Your task to perform on an android device: Open the Play Movies app and select the watchlist tab. Image 0: 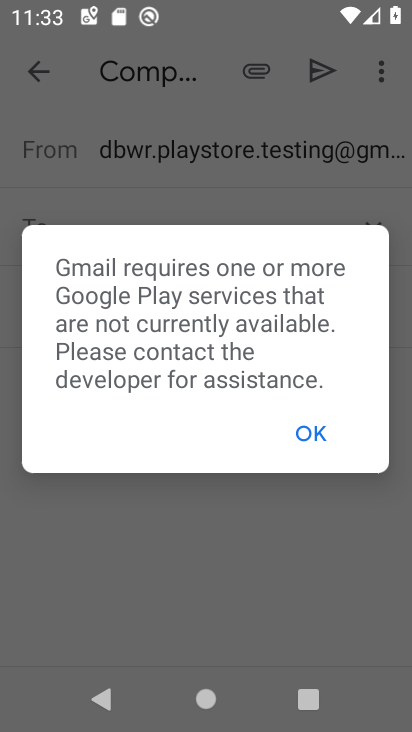
Step 0: click (306, 430)
Your task to perform on an android device: Open the Play Movies app and select the watchlist tab. Image 1: 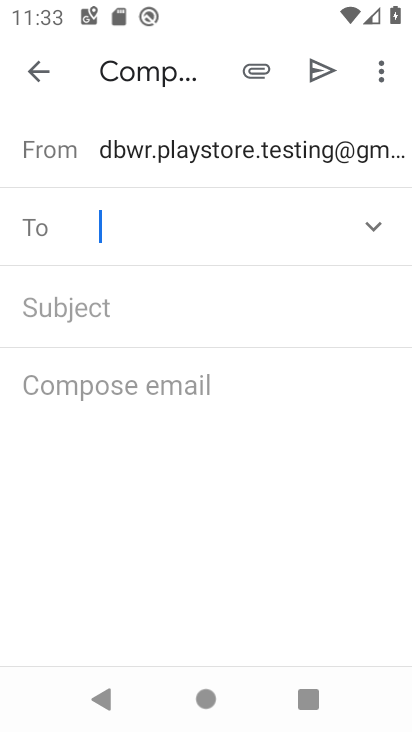
Step 1: press back button
Your task to perform on an android device: Open the Play Movies app and select the watchlist tab. Image 2: 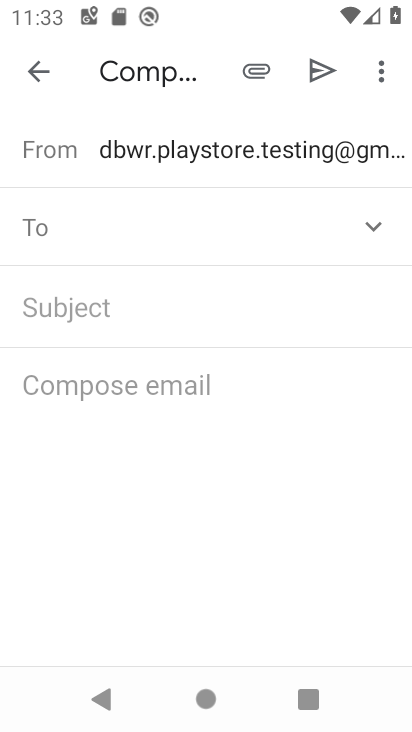
Step 2: press back button
Your task to perform on an android device: Open the Play Movies app and select the watchlist tab. Image 3: 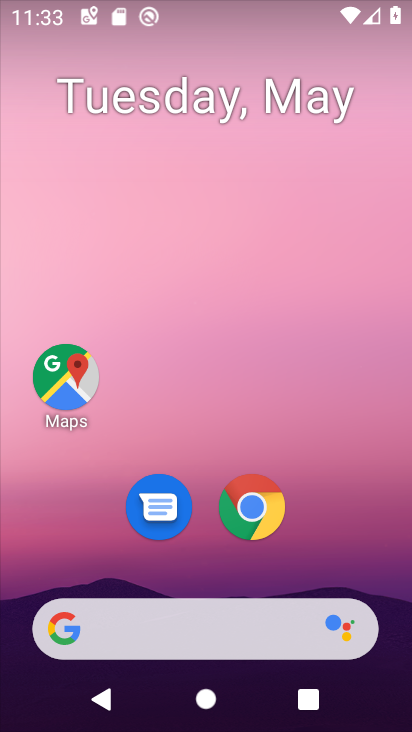
Step 3: drag from (257, 560) to (217, 158)
Your task to perform on an android device: Open the Play Movies app and select the watchlist tab. Image 4: 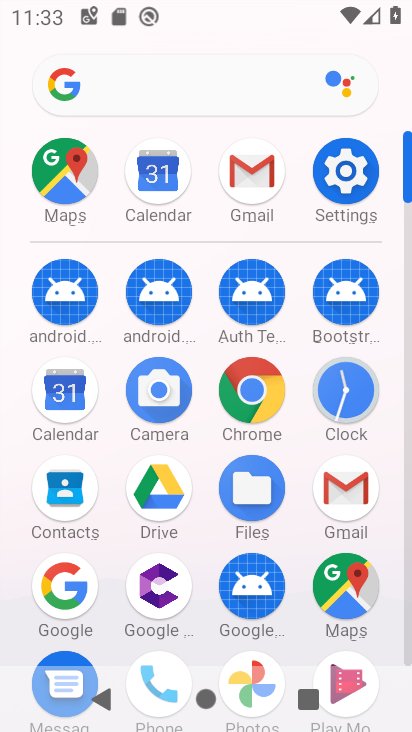
Step 4: drag from (321, 463) to (295, 250)
Your task to perform on an android device: Open the Play Movies app and select the watchlist tab. Image 5: 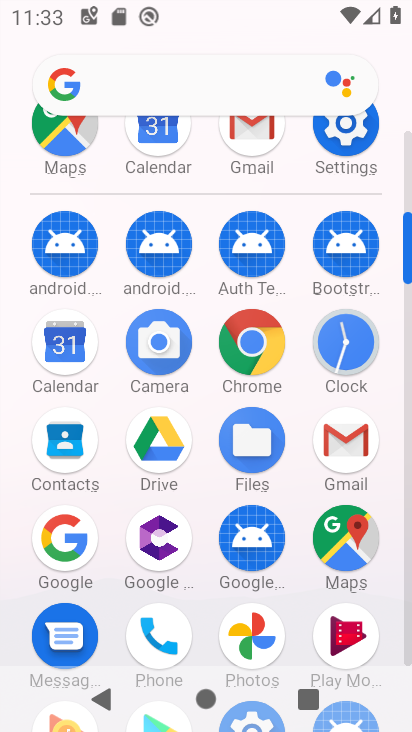
Step 5: drag from (294, 396) to (287, 156)
Your task to perform on an android device: Open the Play Movies app and select the watchlist tab. Image 6: 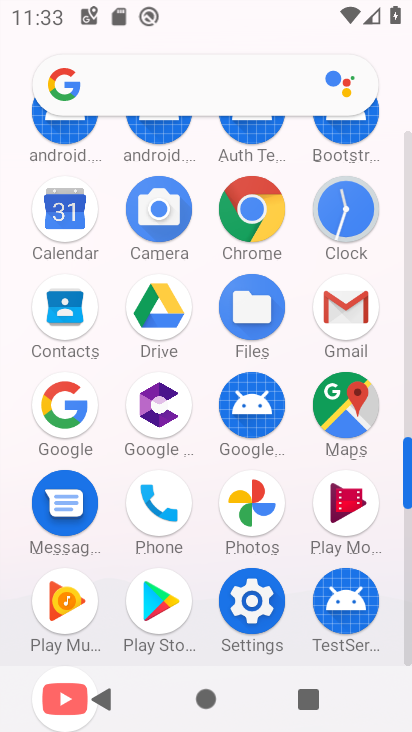
Step 6: click (343, 525)
Your task to perform on an android device: Open the Play Movies app and select the watchlist tab. Image 7: 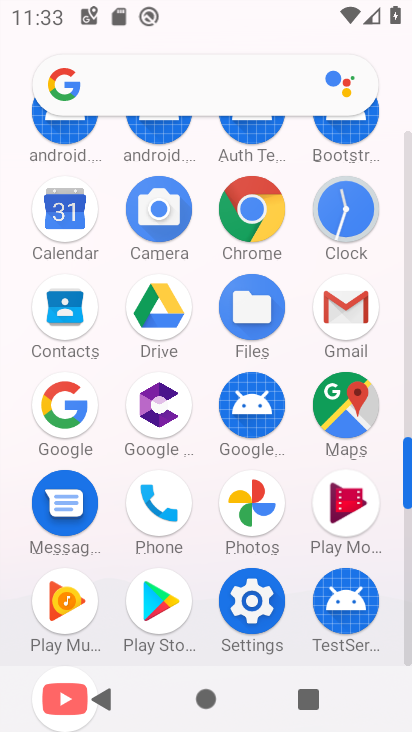
Step 7: click (343, 525)
Your task to perform on an android device: Open the Play Movies app and select the watchlist tab. Image 8: 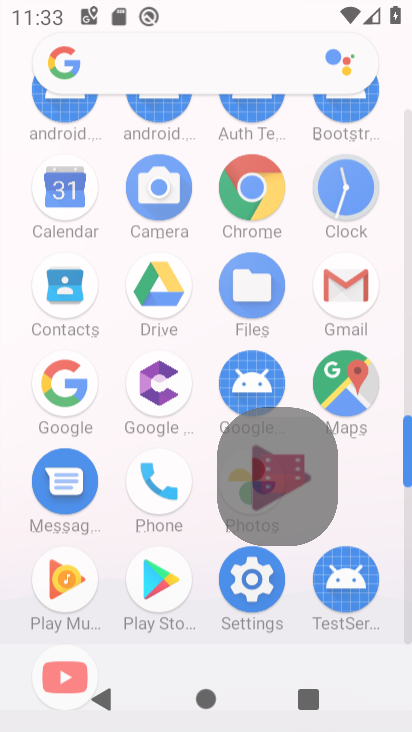
Step 8: click (343, 525)
Your task to perform on an android device: Open the Play Movies app and select the watchlist tab. Image 9: 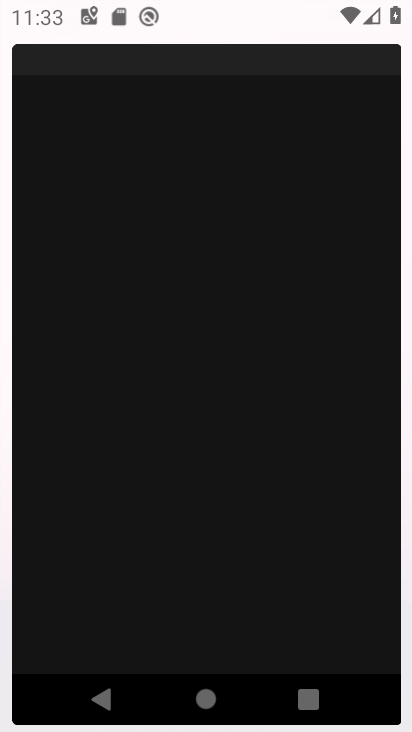
Step 9: click (345, 525)
Your task to perform on an android device: Open the Play Movies app and select the watchlist tab. Image 10: 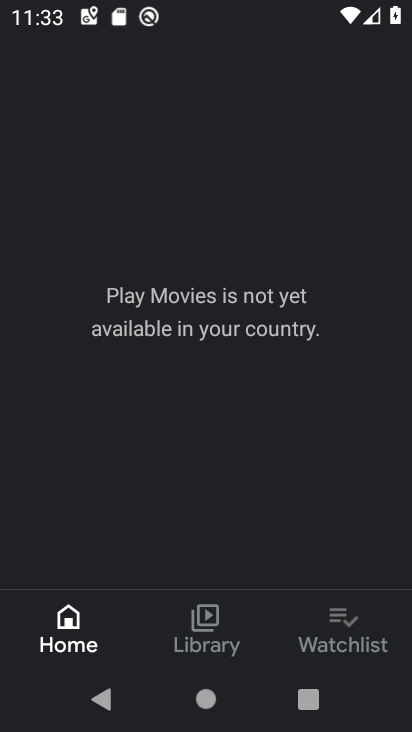
Step 10: click (344, 632)
Your task to perform on an android device: Open the Play Movies app and select the watchlist tab. Image 11: 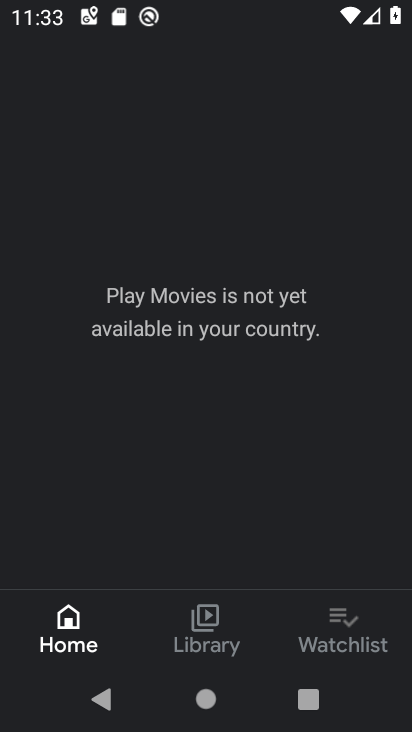
Step 11: click (344, 622)
Your task to perform on an android device: Open the Play Movies app and select the watchlist tab. Image 12: 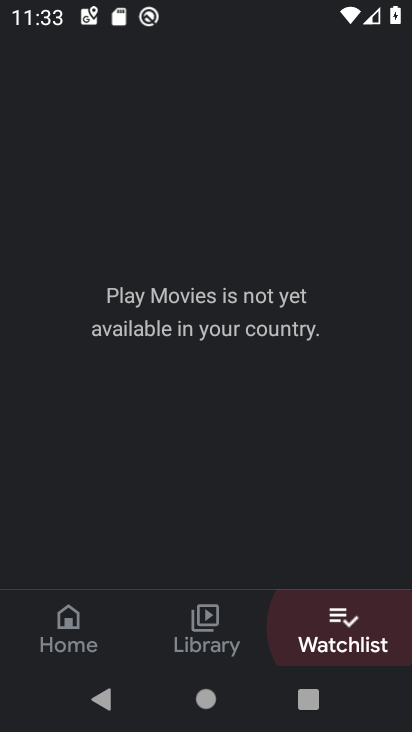
Step 12: click (344, 619)
Your task to perform on an android device: Open the Play Movies app and select the watchlist tab. Image 13: 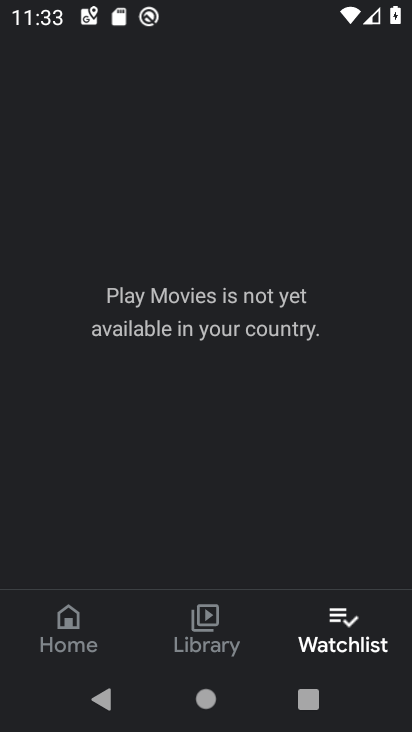
Step 13: click (337, 618)
Your task to perform on an android device: Open the Play Movies app and select the watchlist tab. Image 14: 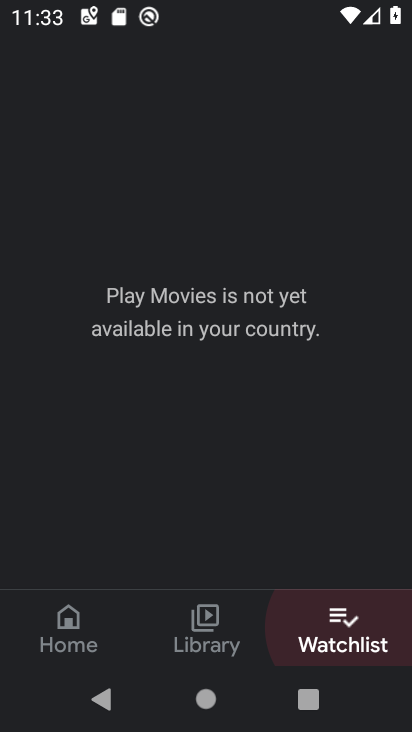
Step 14: click (336, 612)
Your task to perform on an android device: Open the Play Movies app and select the watchlist tab. Image 15: 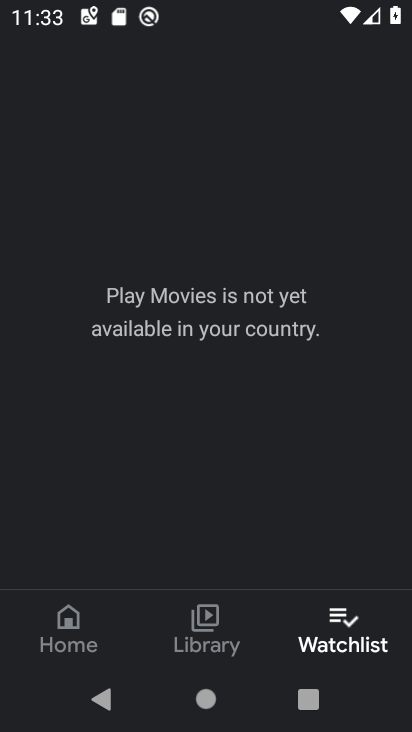
Step 15: click (333, 626)
Your task to perform on an android device: Open the Play Movies app and select the watchlist tab. Image 16: 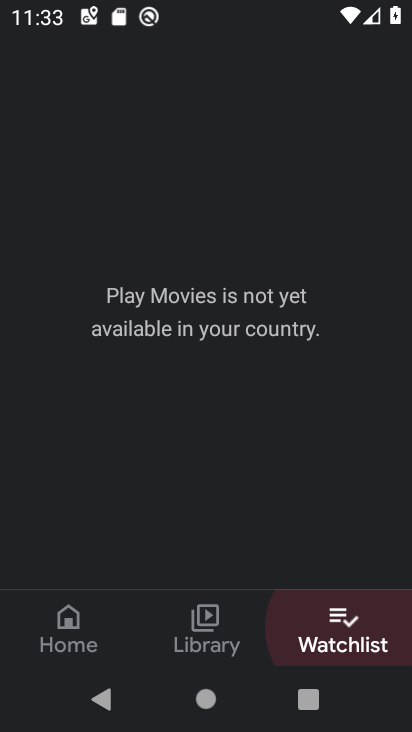
Step 16: click (334, 630)
Your task to perform on an android device: Open the Play Movies app and select the watchlist tab. Image 17: 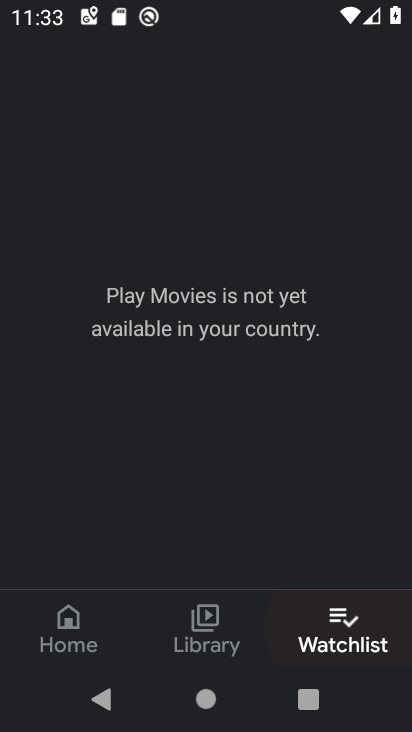
Step 17: click (335, 629)
Your task to perform on an android device: Open the Play Movies app and select the watchlist tab. Image 18: 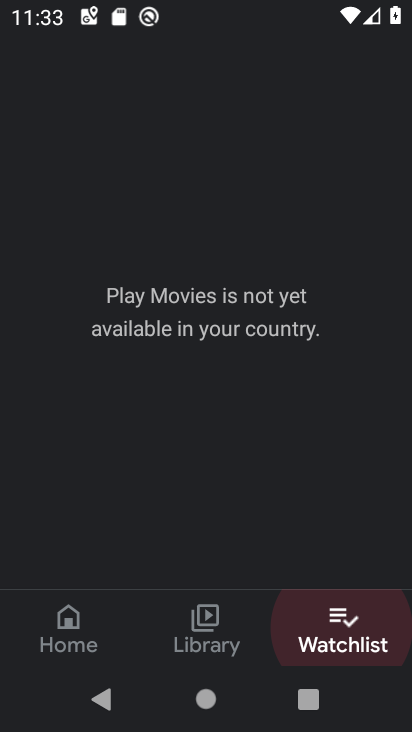
Step 18: click (336, 628)
Your task to perform on an android device: Open the Play Movies app and select the watchlist tab. Image 19: 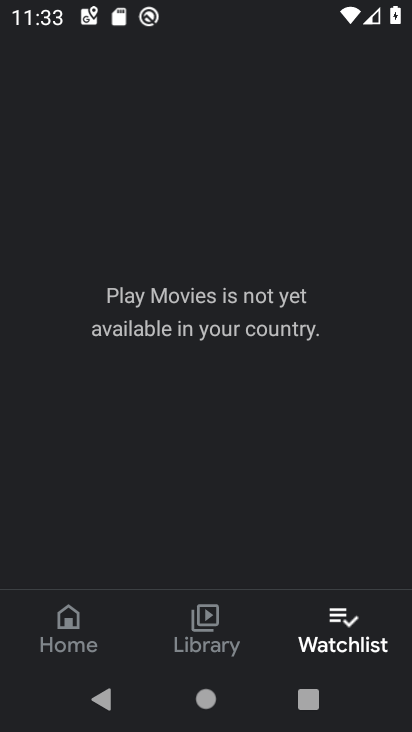
Step 19: click (342, 624)
Your task to perform on an android device: Open the Play Movies app and select the watchlist tab. Image 20: 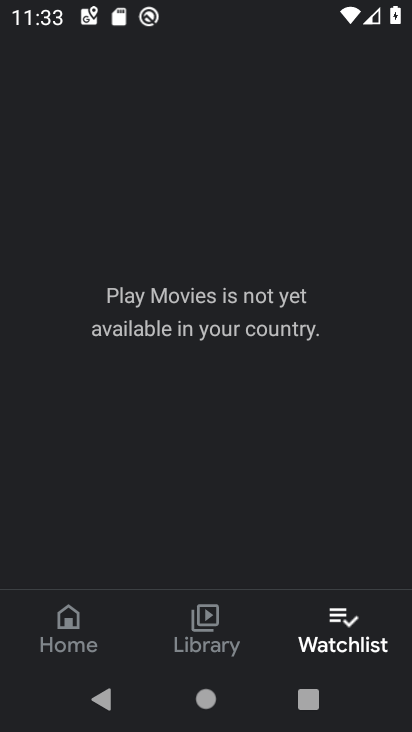
Step 20: task complete